Your task to perform on an android device: clear history in the chrome app Image 0: 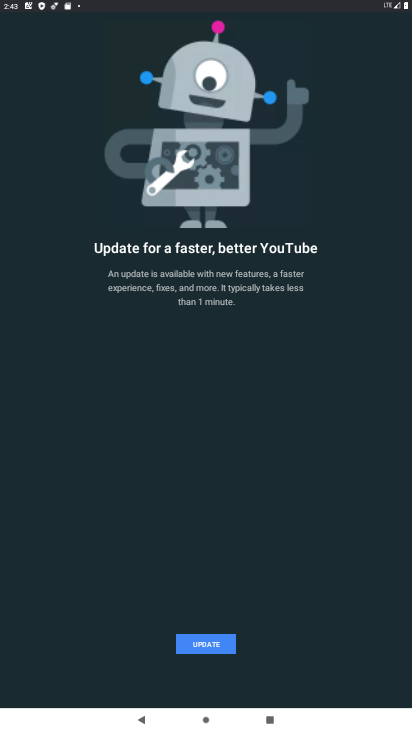
Step 0: press back button
Your task to perform on an android device: clear history in the chrome app Image 1: 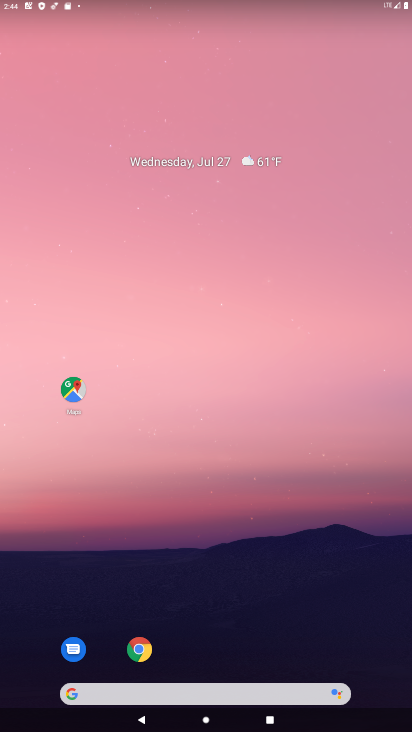
Step 1: click (132, 646)
Your task to perform on an android device: clear history in the chrome app Image 2: 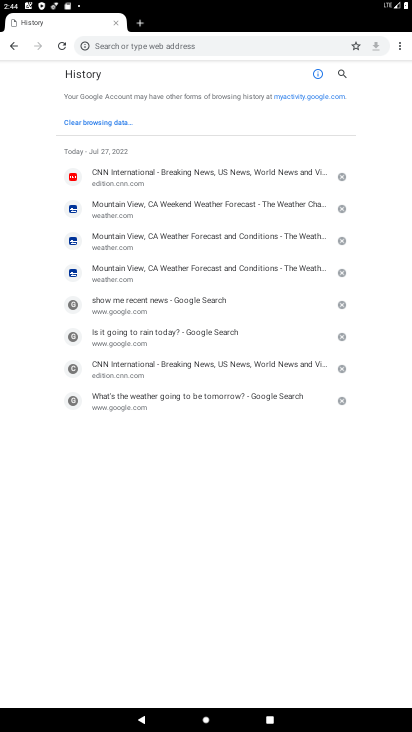
Step 2: click (105, 119)
Your task to perform on an android device: clear history in the chrome app Image 3: 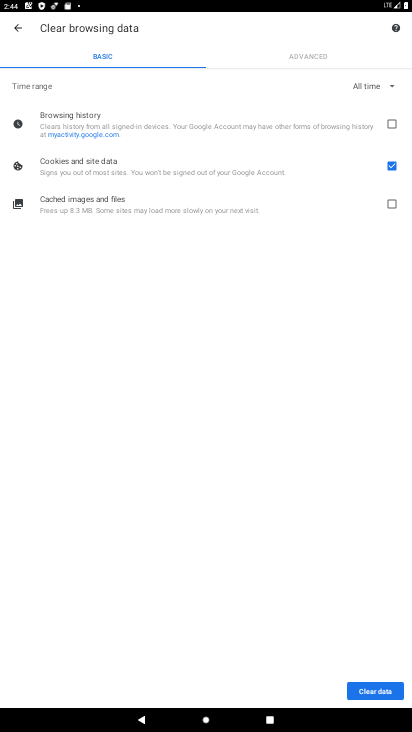
Step 3: click (382, 123)
Your task to perform on an android device: clear history in the chrome app Image 4: 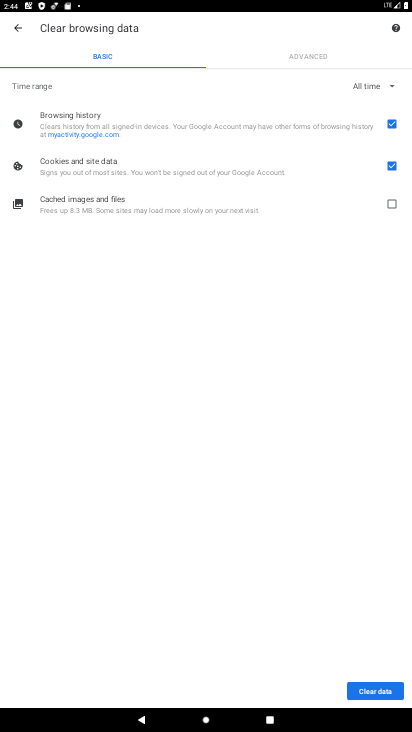
Step 4: click (391, 204)
Your task to perform on an android device: clear history in the chrome app Image 5: 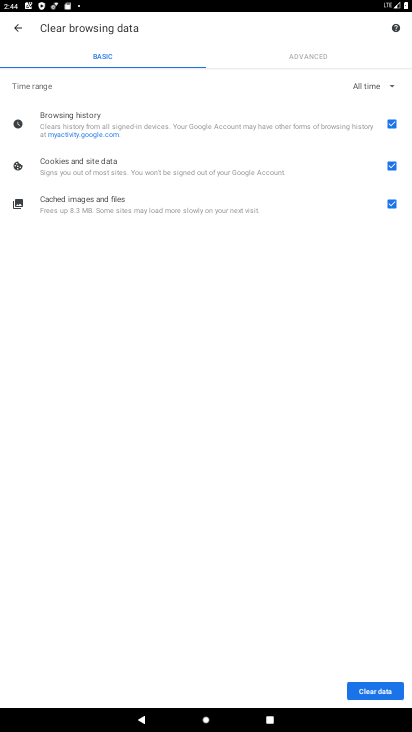
Step 5: click (365, 693)
Your task to perform on an android device: clear history in the chrome app Image 6: 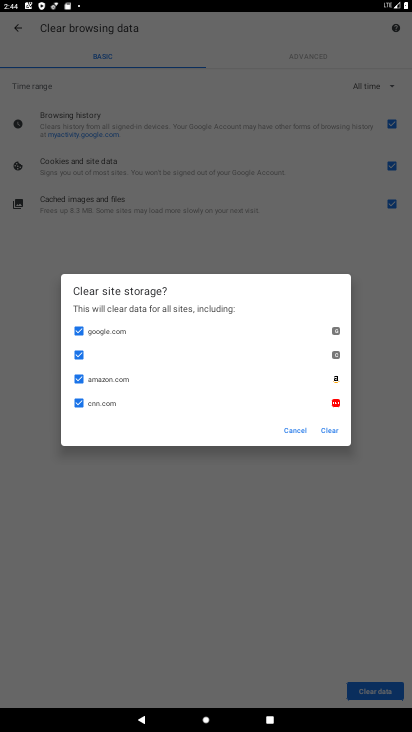
Step 6: click (323, 431)
Your task to perform on an android device: clear history in the chrome app Image 7: 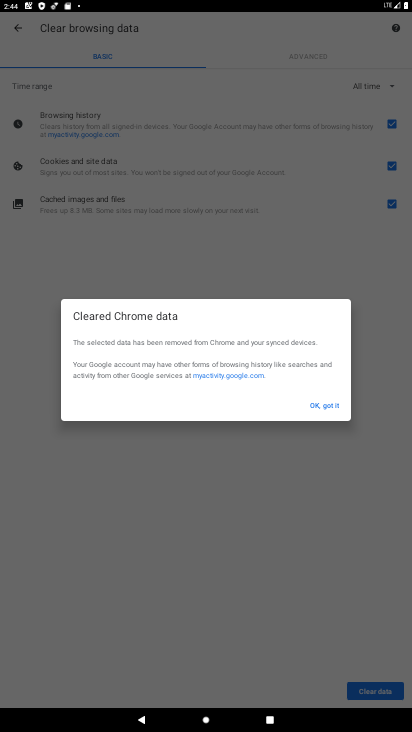
Step 7: click (322, 410)
Your task to perform on an android device: clear history in the chrome app Image 8: 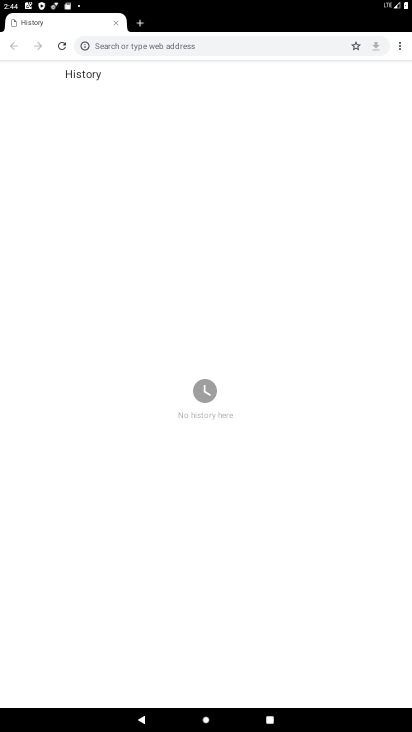
Step 8: task complete